Your task to perform on an android device: Open Chrome and go to settings Image 0: 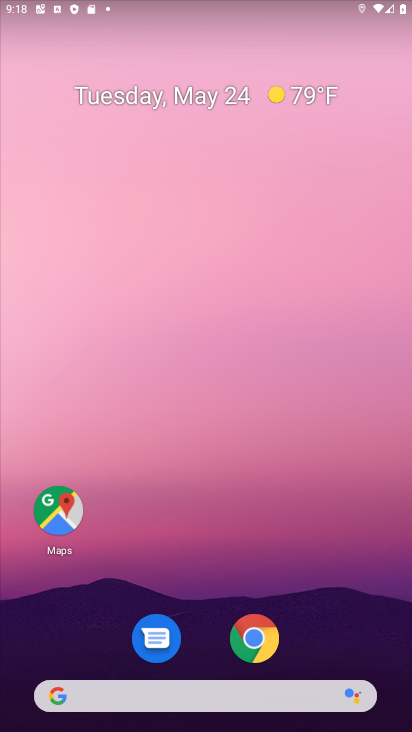
Step 0: drag from (98, 715) to (157, 20)
Your task to perform on an android device: Open Chrome and go to settings Image 1: 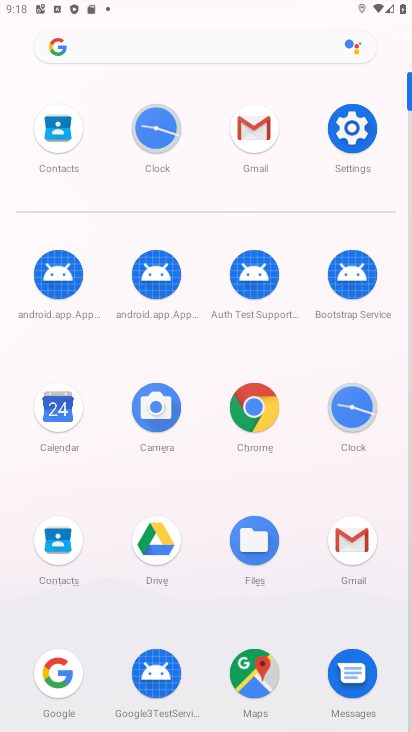
Step 1: click (264, 410)
Your task to perform on an android device: Open Chrome and go to settings Image 2: 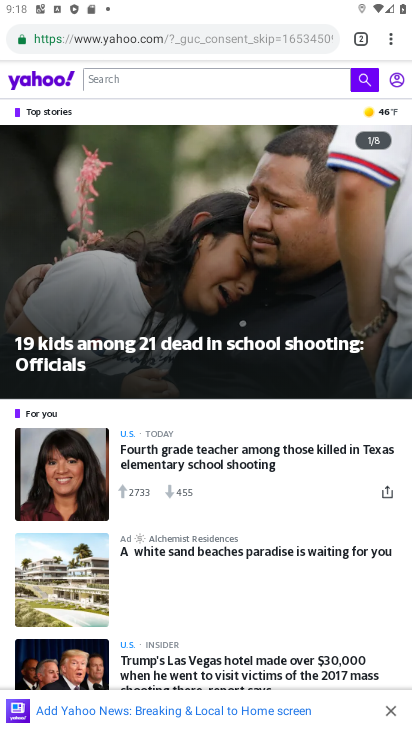
Step 2: click (390, 30)
Your task to perform on an android device: Open Chrome and go to settings Image 3: 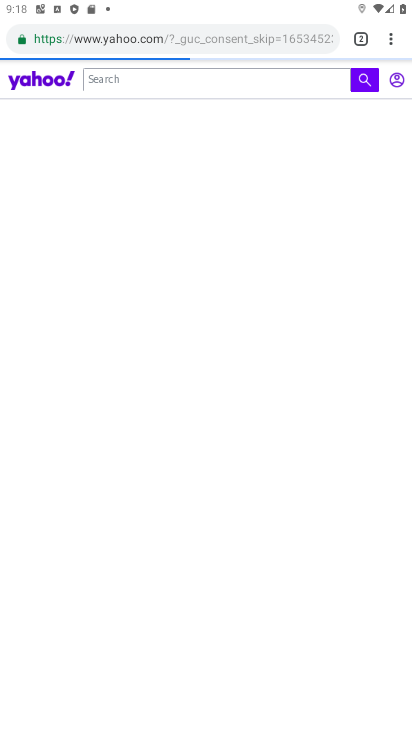
Step 3: click (393, 38)
Your task to perform on an android device: Open Chrome and go to settings Image 4: 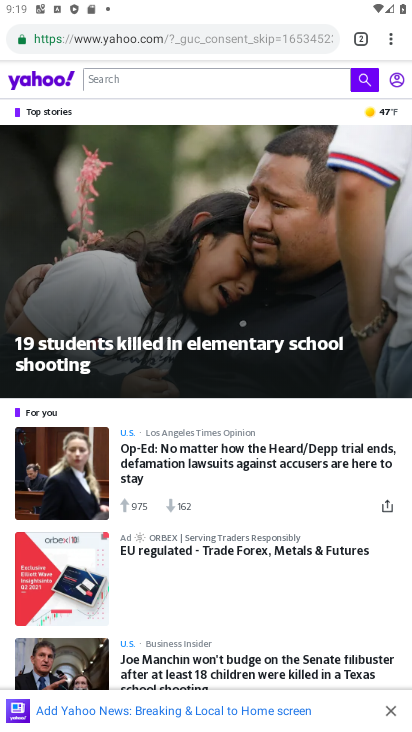
Step 4: click (393, 38)
Your task to perform on an android device: Open Chrome and go to settings Image 5: 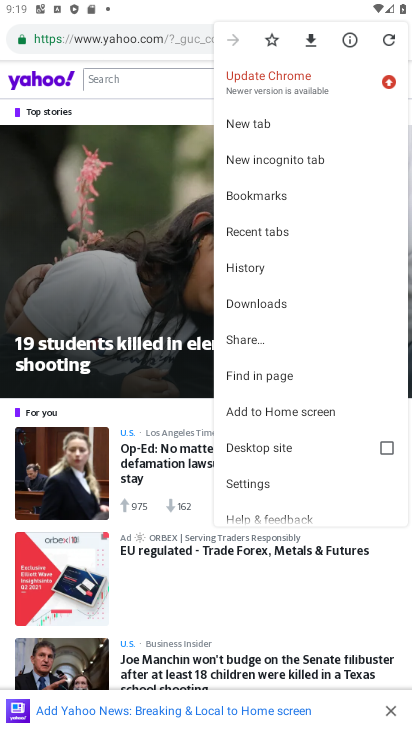
Step 5: click (257, 481)
Your task to perform on an android device: Open Chrome and go to settings Image 6: 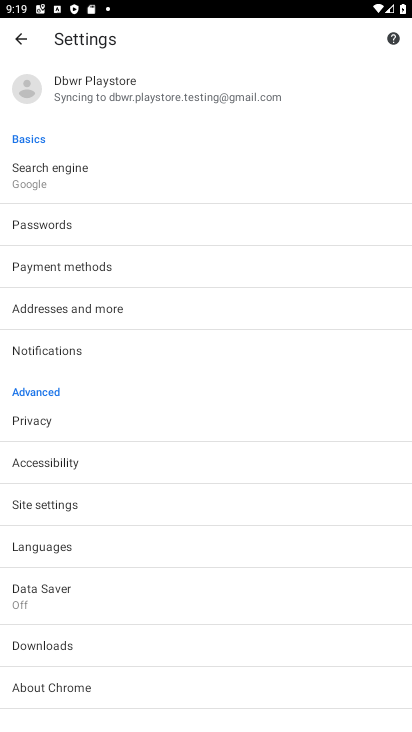
Step 6: task complete